Your task to perform on an android device: Open Wikipedia Image 0: 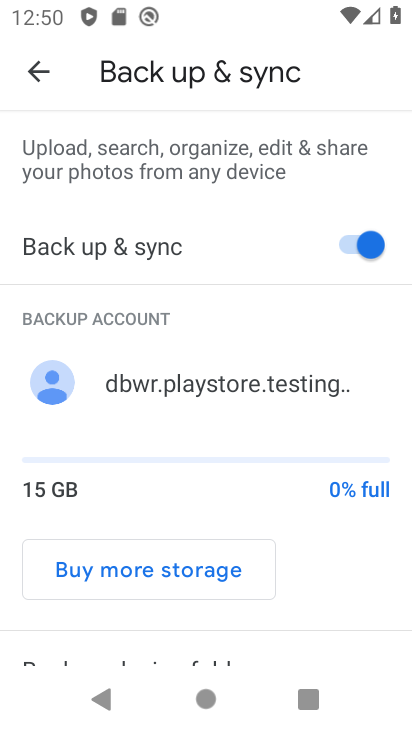
Step 0: press home button
Your task to perform on an android device: Open Wikipedia Image 1: 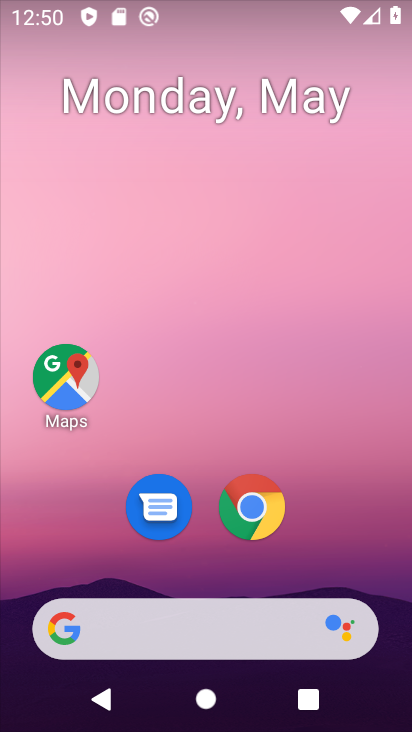
Step 1: click (250, 508)
Your task to perform on an android device: Open Wikipedia Image 2: 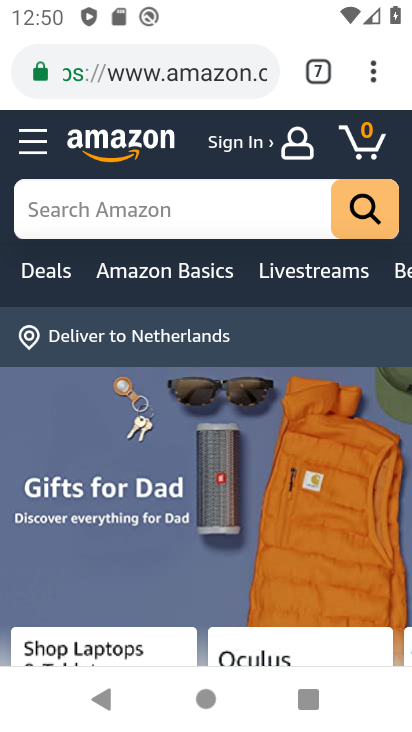
Step 2: click (375, 77)
Your task to perform on an android device: Open Wikipedia Image 3: 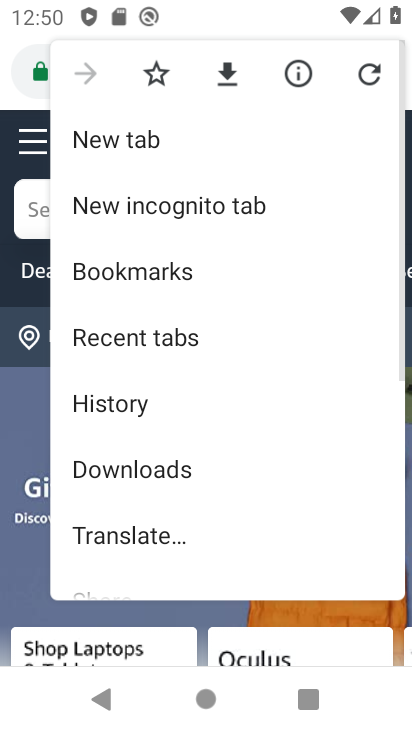
Step 3: click (109, 140)
Your task to perform on an android device: Open Wikipedia Image 4: 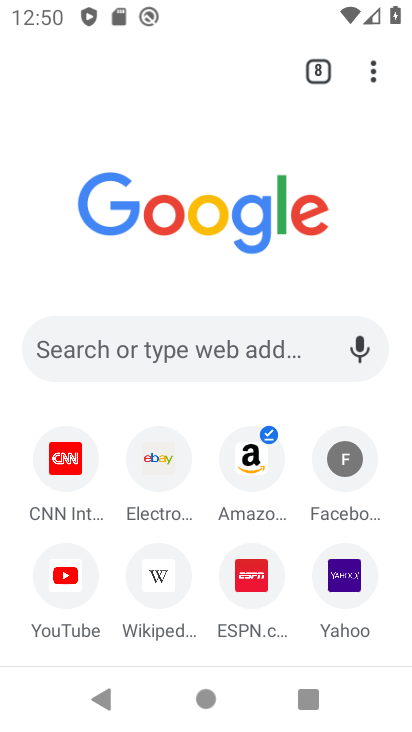
Step 4: click (163, 582)
Your task to perform on an android device: Open Wikipedia Image 5: 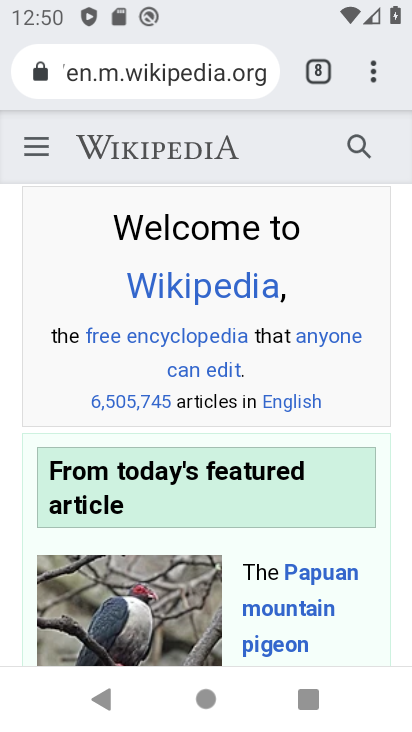
Step 5: task complete